Your task to perform on an android device: check the backup settings in the google photos Image 0: 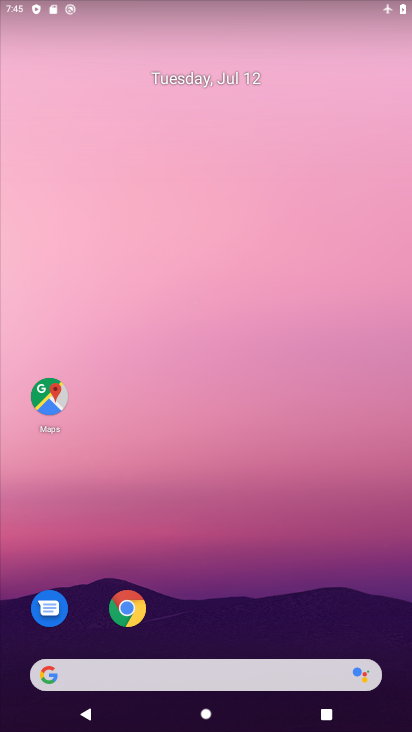
Step 0: drag from (229, 671) to (220, 154)
Your task to perform on an android device: check the backup settings in the google photos Image 1: 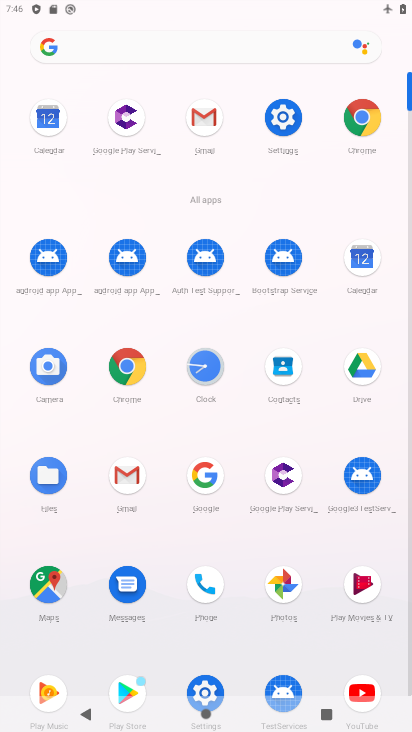
Step 1: click (265, 129)
Your task to perform on an android device: check the backup settings in the google photos Image 2: 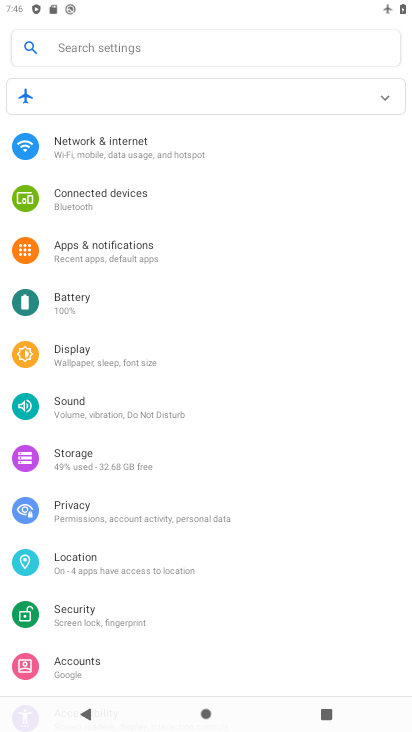
Step 2: press home button
Your task to perform on an android device: check the backup settings in the google photos Image 3: 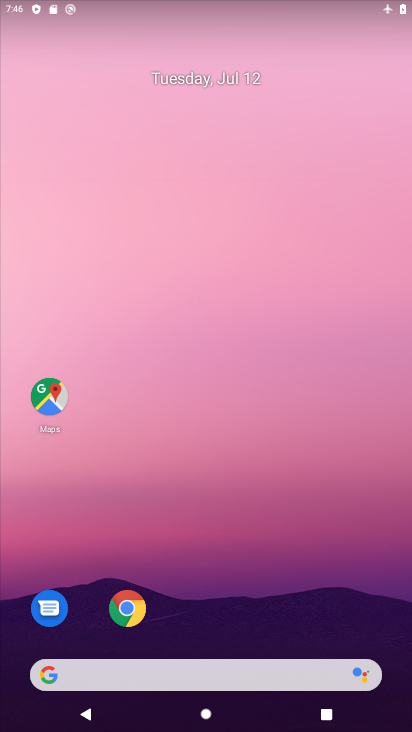
Step 3: drag from (208, 648) to (385, 47)
Your task to perform on an android device: check the backup settings in the google photos Image 4: 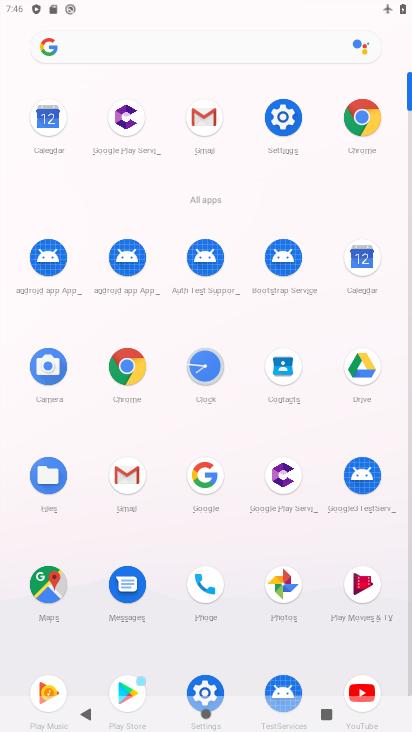
Step 4: click (287, 587)
Your task to perform on an android device: check the backup settings in the google photos Image 5: 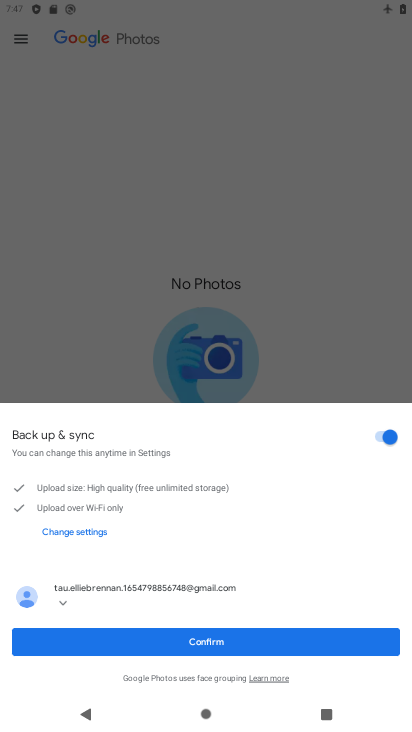
Step 5: click (269, 640)
Your task to perform on an android device: check the backup settings in the google photos Image 6: 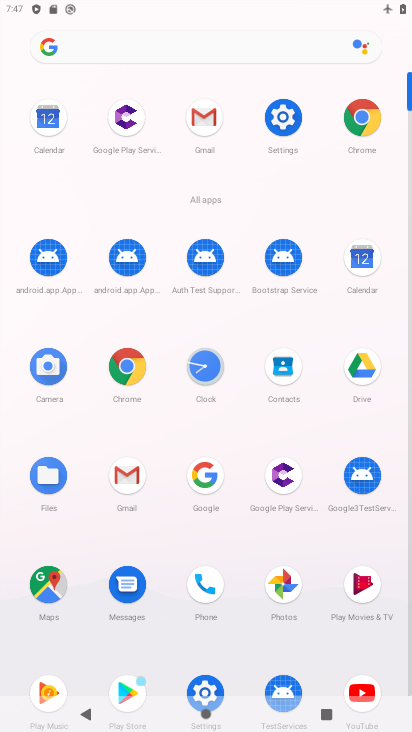
Step 6: click (275, 597)
Your task to perform on an android device: check the backup settings in the google photos Image 7: 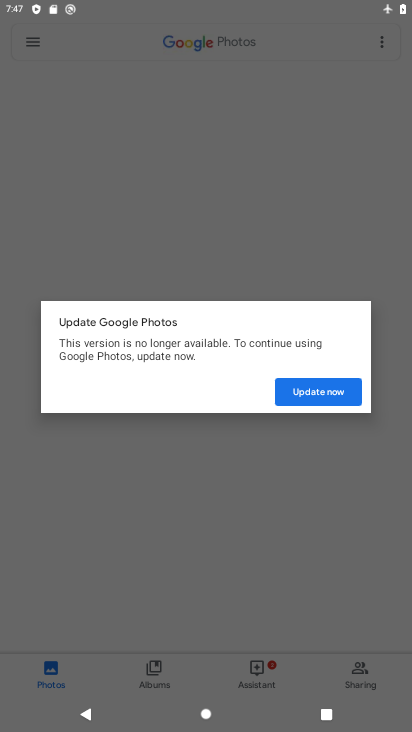
Step 7: click (338, 462)
Your task to perform on an android device: check the backup settings in the google photos Image 8: 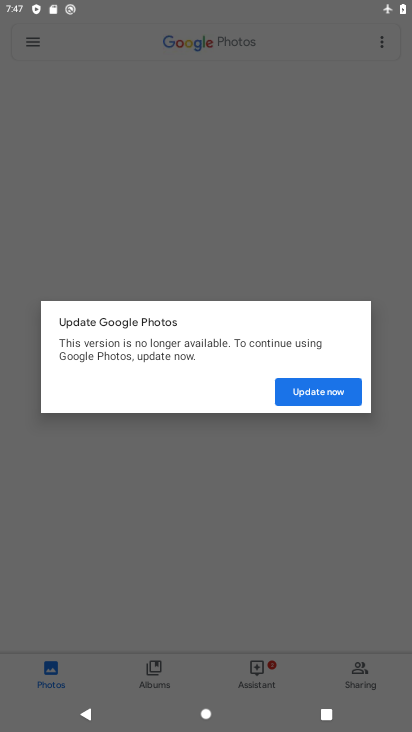
Step 8: click (317, 399)
Your task to perform on an android device: check the backup settings in the google photos Image 9: 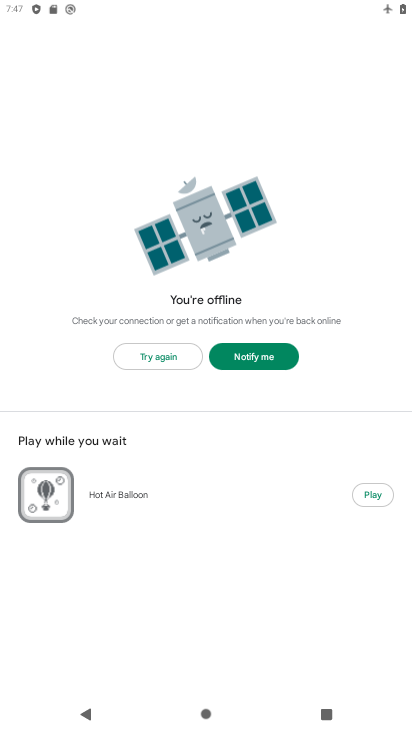
Step 9: click (174, 349)
Your task to perform on an android device: check the backup settings in the google photos Image 10: 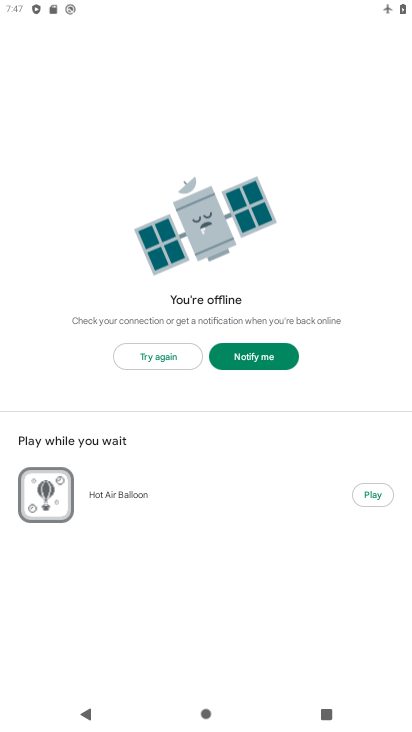
Step 10: task complete